Your task to perform on an android device: toggle improve location accuracy Image 0: 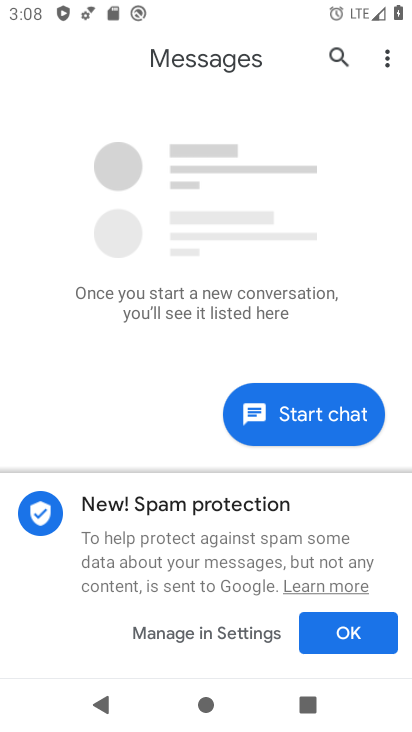
Step 0: press home button
Your task to perform on an android device: toggle improve location accuracy Image 1: 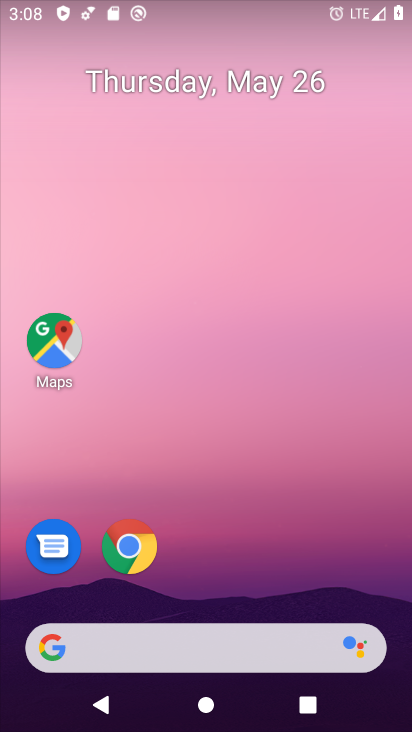
Step 1: drag from (174, 560) to (243, 93)
Your task to perform on an android device: toggle improve location accuracy Image 2: 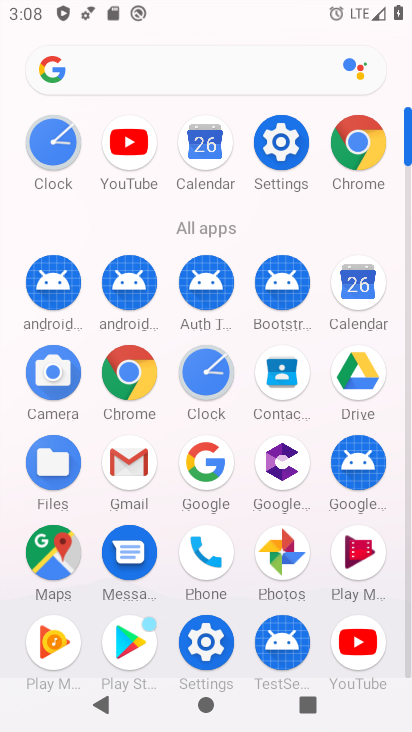
Step 2: click (270, 141)
Your task to perform on an android device: toggle improve location accuracy Image 3: 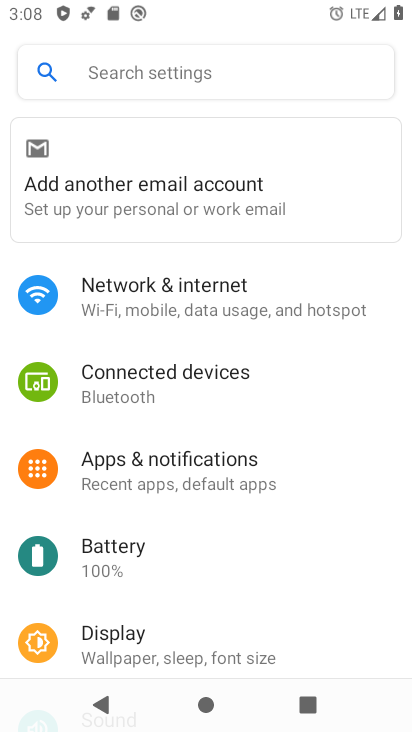
Step 3: drag from (156, 573) to (236, 31)
Your task to perform on an android device: toggle improve location accuracy Image 4: 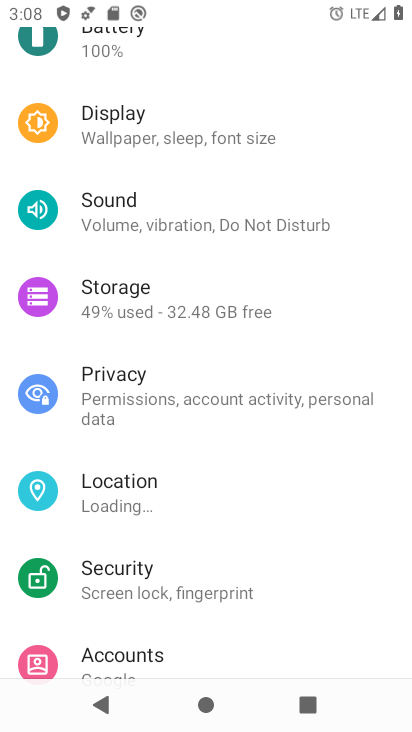
Step 4: click (121, 498)
Your task to perform on an android device: toggle improve location accuracy Image 5: 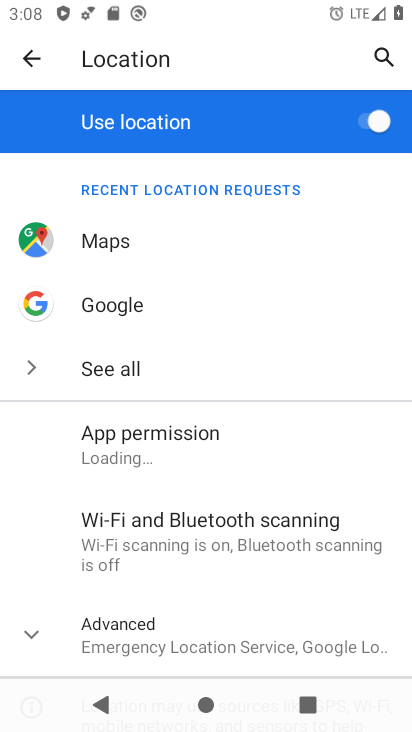
Step 5: click (196, 636)
Your task to perform on an android device: toggle improve location accuracy Image 6: 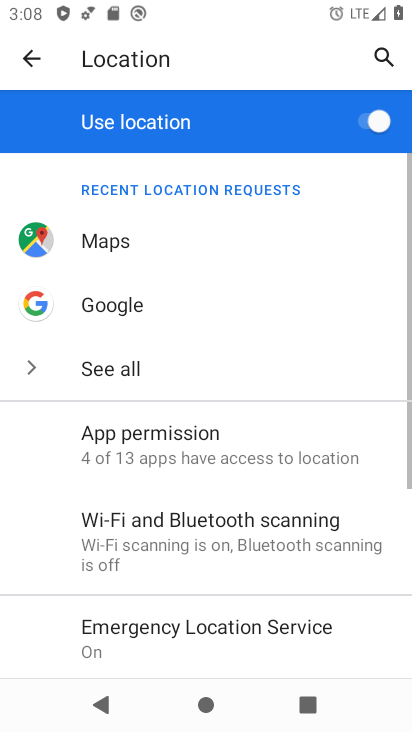
Step 6: drag from (222, 569) to (277, 146)
Your task to perform on an android device: toggle improve location accuracy Image 7: 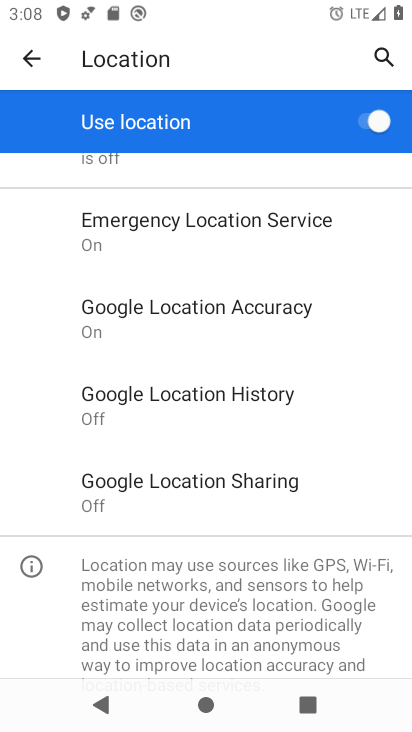
Step 7: click (207, 300)
Your task to perform on an android device: toggle improve location accuracy Image 8: 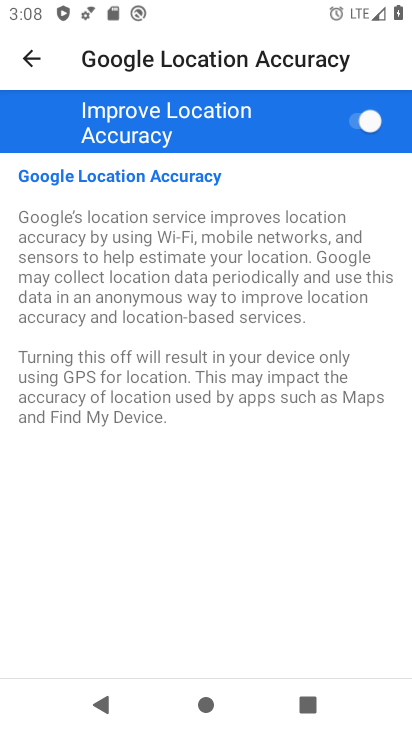
Step 8: click (361, 109)
Your task to perform on an android device: toggle improve location accuracy Image 9: 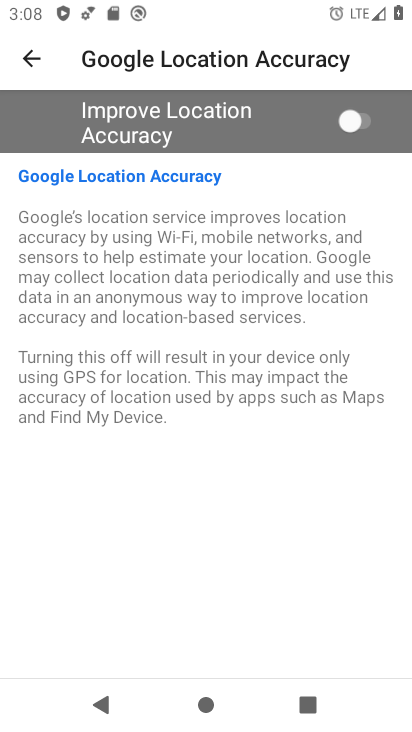
Step 9: task complete